Your task to perform on an android device: Open Youtube and go to "Your channel" Image 0: 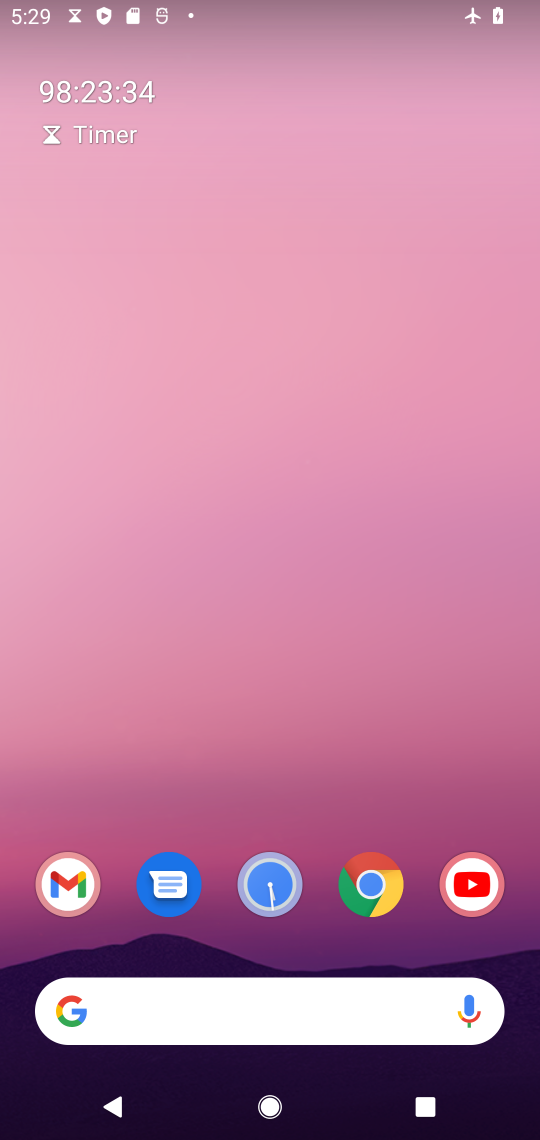
Step 0: drag from (265, 959) to (425, 130)
Your task to perform on an android device: Open Youtube and go to "Your channel" Image 1: 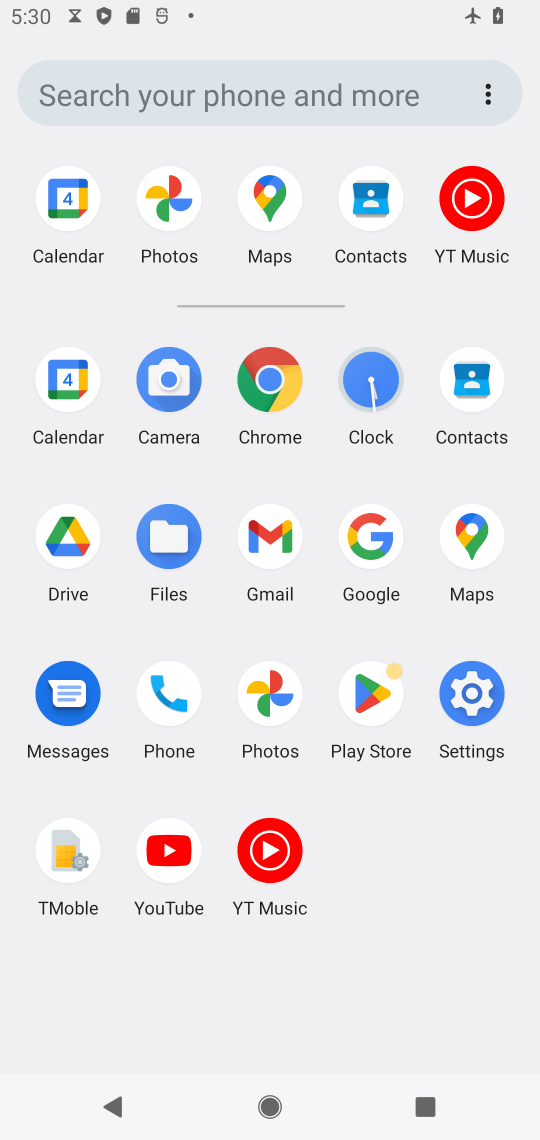
Step 1: click (172, 855)
Your task to perform on an android device: Open Youtube and go to "Your channel" Image 2: 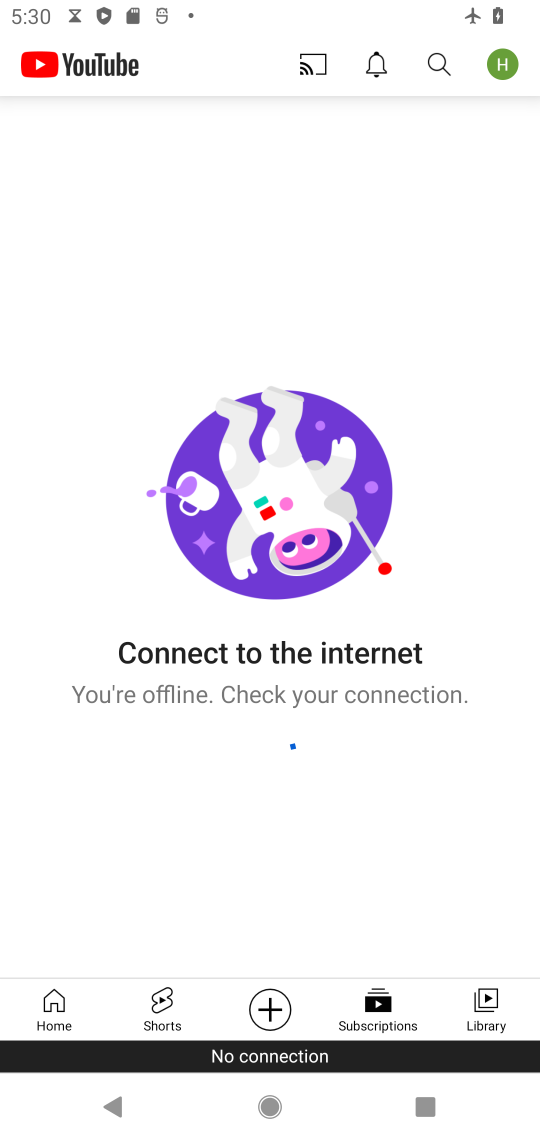
Step 2: click (439, 55)
Your task to perform on an android device: Open Youtube and go to "Your channel" Image 3: 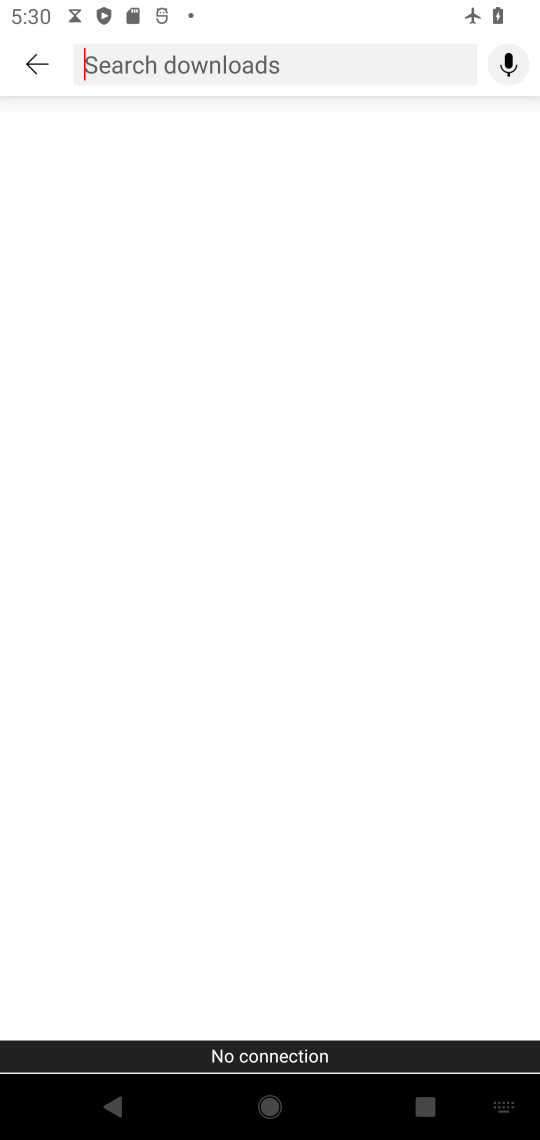
Step 3: click (247, 64)
Your task to perform on an android device: Open Youtube and go to "Your channel" Image 4: 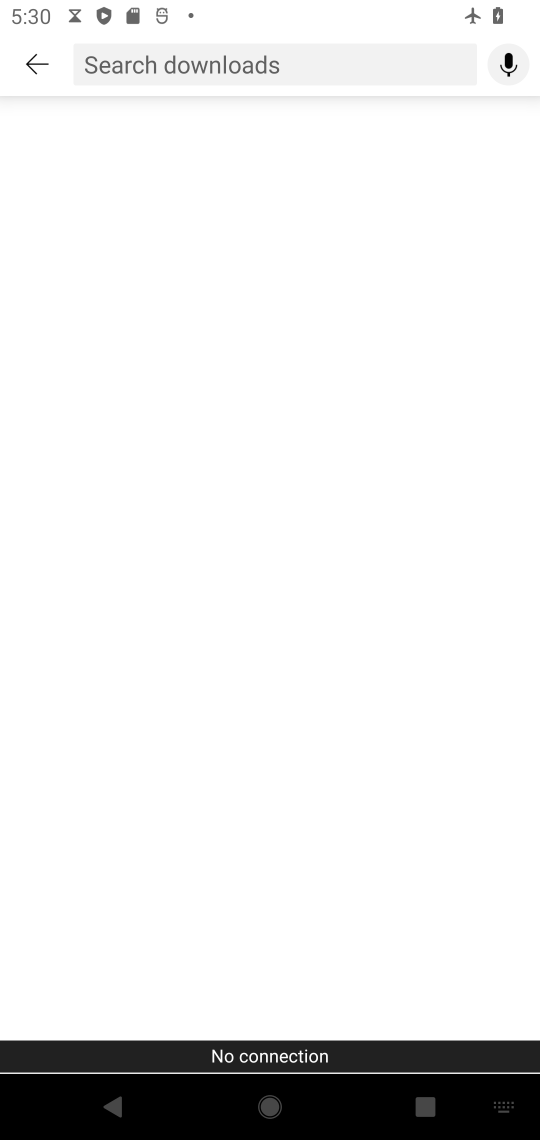
Step 4: type "delhi love "
Your task to perform on an android device: Open Youtube and go to "Your channel" Image 5: 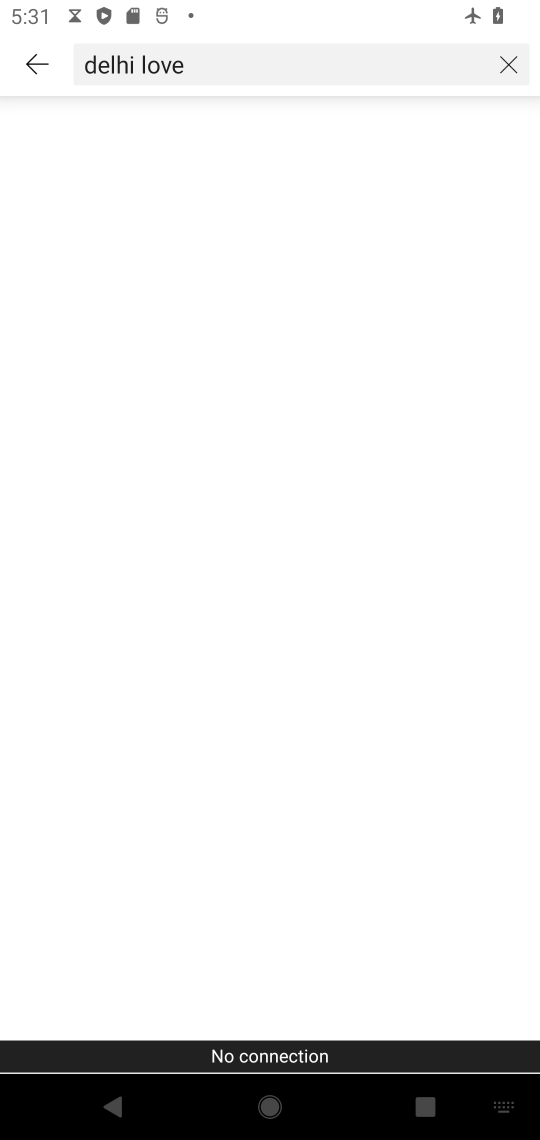
Step 5: task complete